Your task to perform on an android device: Open settings Image 0: 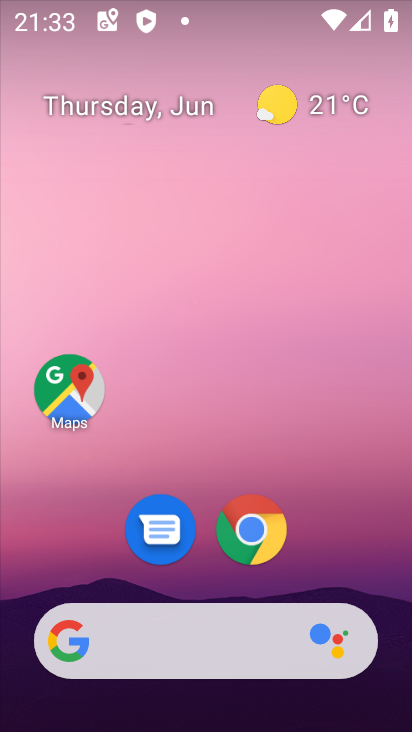
Step 0: drag from (358, 527) to (171, 81)
Your task to perform on an android device: Open settings Image 1: 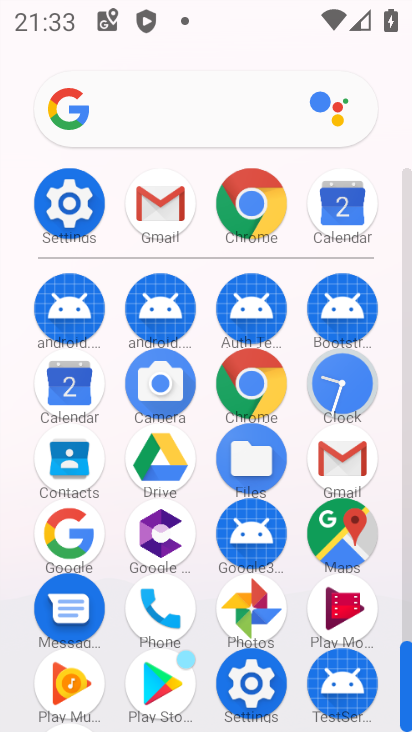
Step 1: click (65, 198)
Your task to perform on an android device: Open settings Image 2: 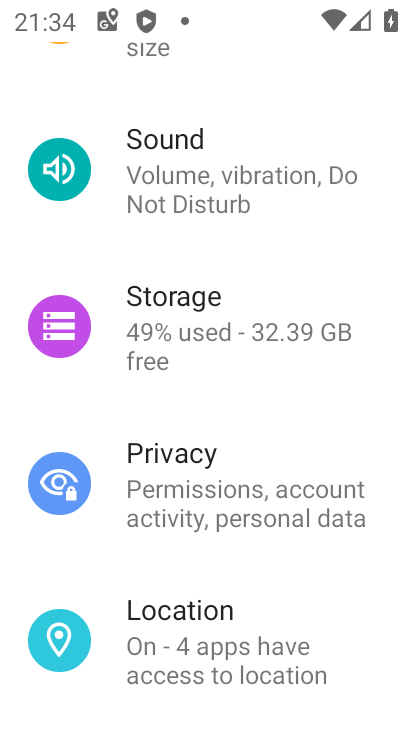
Step 2: task complete